Your task to perform on an android device: allow notifications from all sites in the chrome app Image 0: 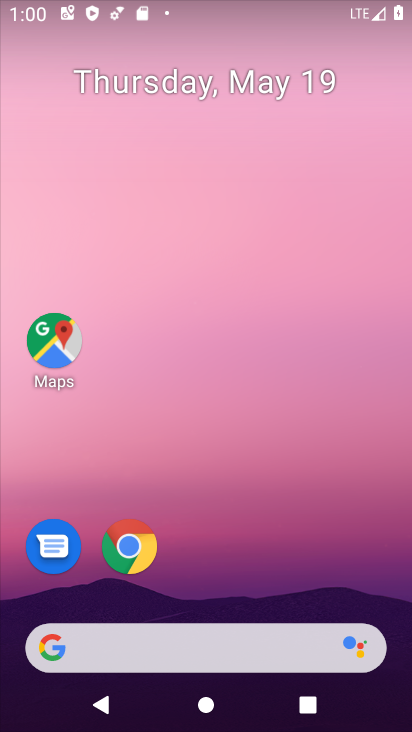
Step 0: click (134, 549)
Your task to perform on an android device: allow notifications from all sites in the chrome app Image 1: 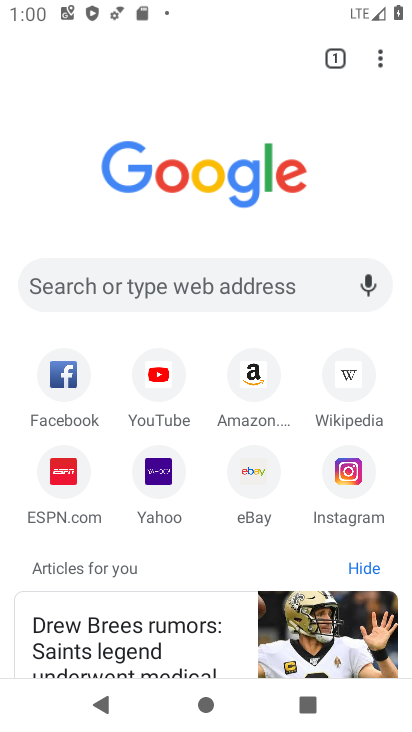
Step 1: click (377, 63)
Your task to perform on an android device: allow notifications from all sites in the chrome app Image 2: 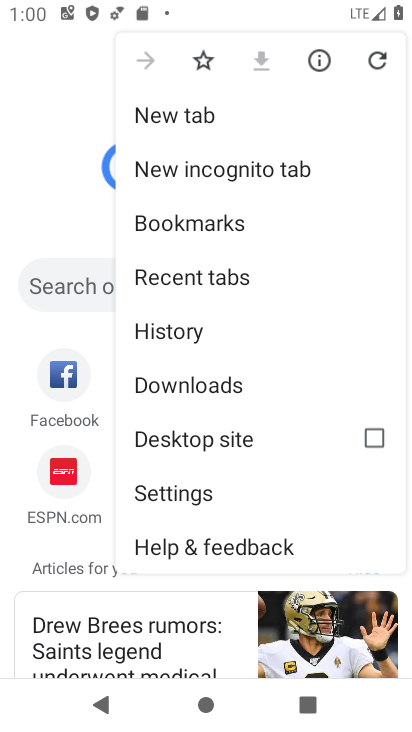
Step 2: click (185, 487)
Your task to perform on an android device: allow notifications from all sites in the chrome app Image 3: 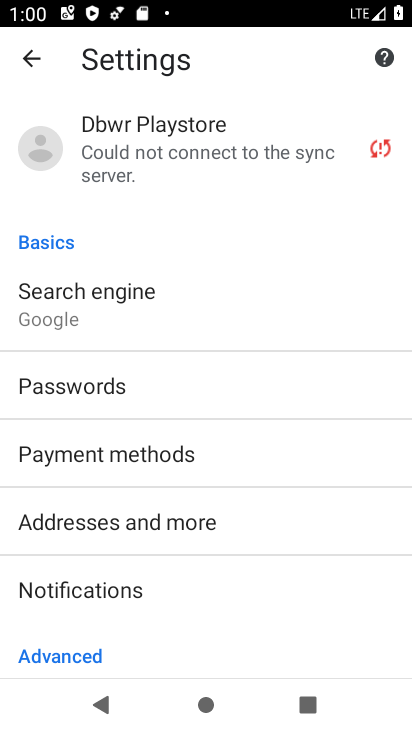
Step 3: click (104, 598)
Your task to perform on an android device: allow notifications from all sites in the chrome app Image 4: 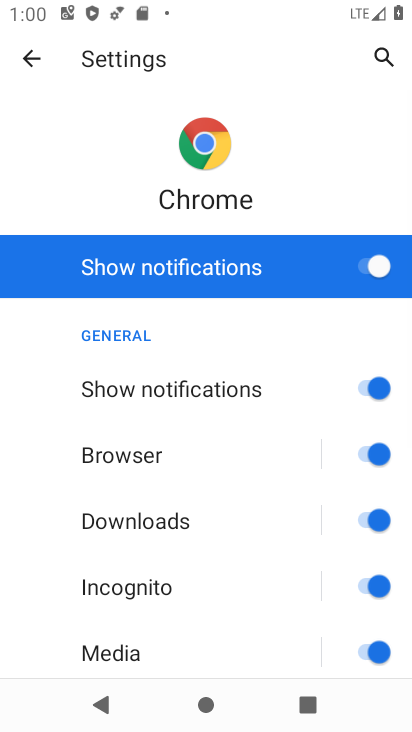
Step 4: task complete